Your task to perform on an android device: see tabs open on other devices in the chrome app Image 0: 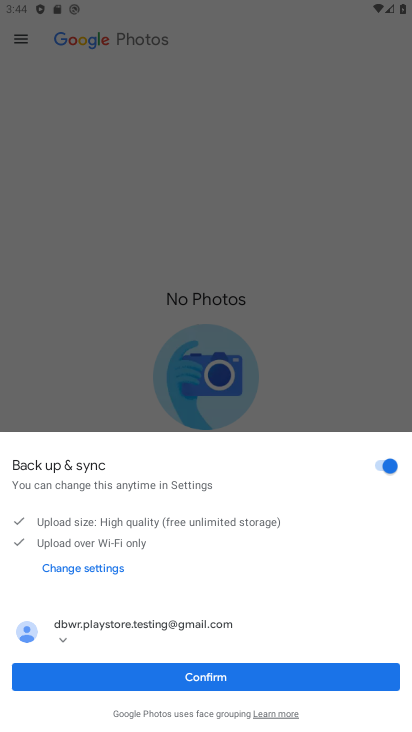
Step 0: press home button
Your task to perform on an android device: see tabs open on other devices in the chrome app Image 1: 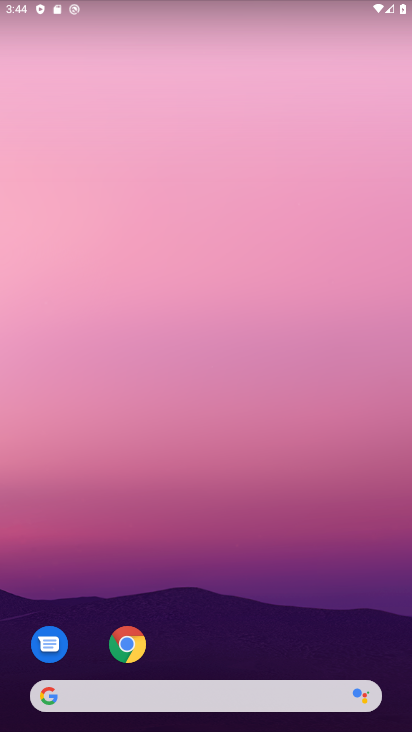
Step 1: click (126, 644)
Your task to perform on an android device: see tabs open on other devices in the chrome app Image 2: 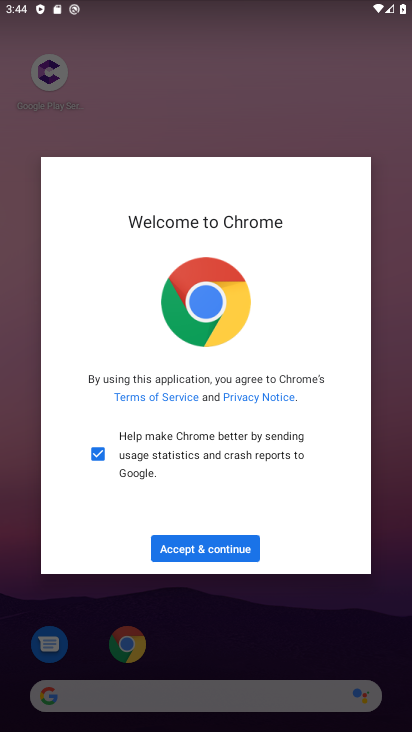
Step 2: click (194, 550)
Your task to perform on an android device: see tabs open on other devices in the chrome app Image 3: 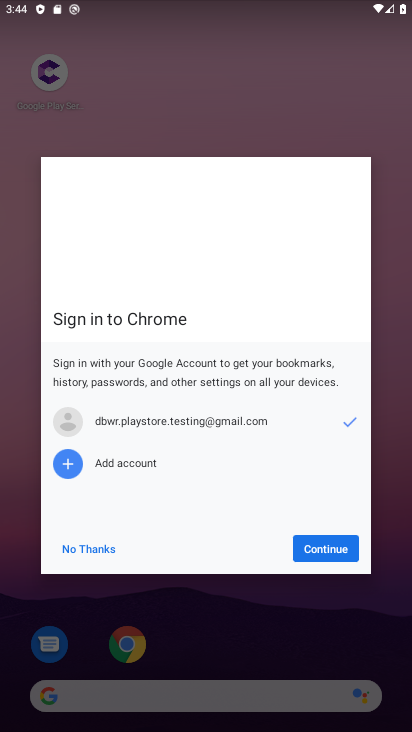
Step 3: click (323, 544)
Your task to perform on an android device: see tabs open on other devices in the chrome app Image 4: 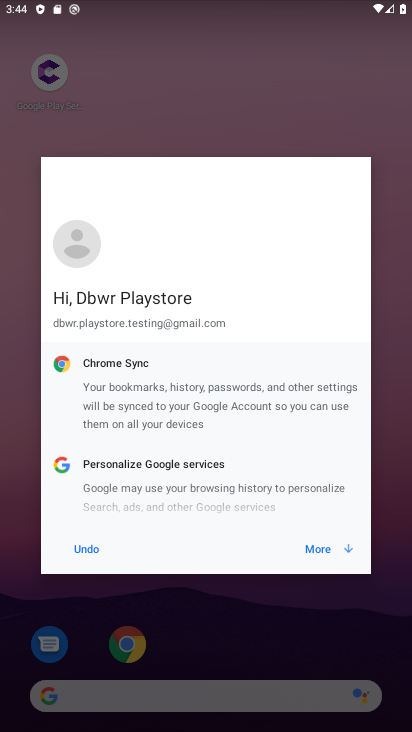
Step 4: click (324, 548)
Your task to perform on an android device: see tabs open on other devices in the chrome app Image 5: 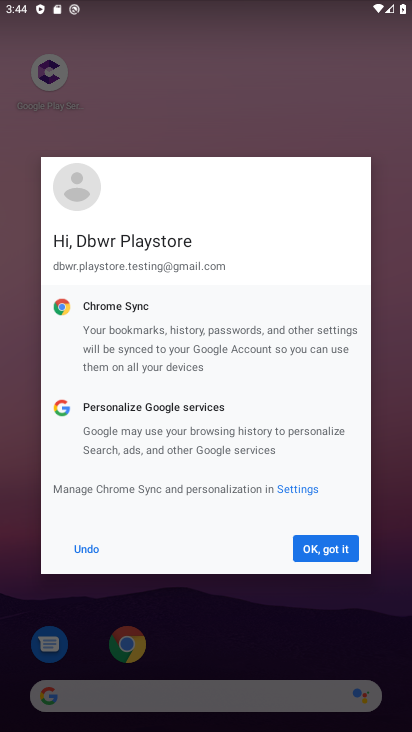
Step 5: click (324, 548)
Your task to perform on an android device: see tabs open on other devices in the chrome app Image 6: 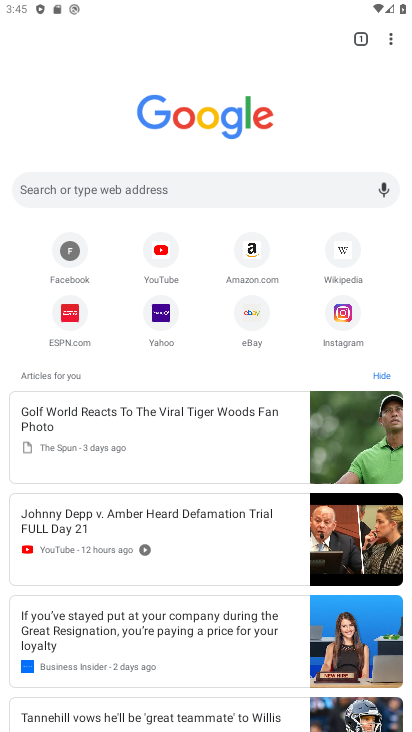
Step 6: click (392, 38)
Your task to perform on an android device: see tabs open on other devices in the chrome app Image 7: 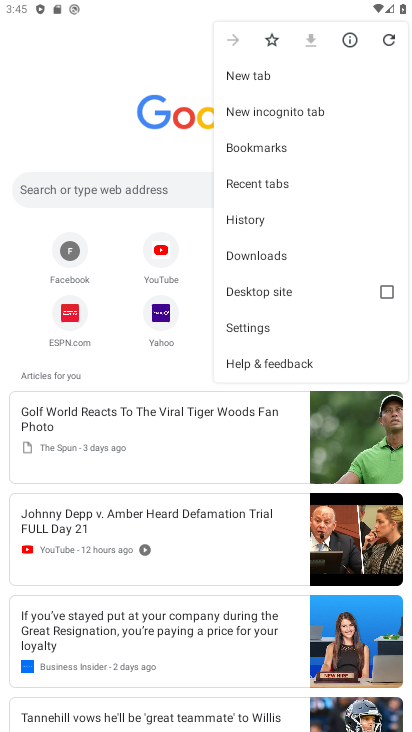
Step 7: click (250, 184)
Your task to perform on an android device: see tabs open on other devices in the chrome app Image 8: 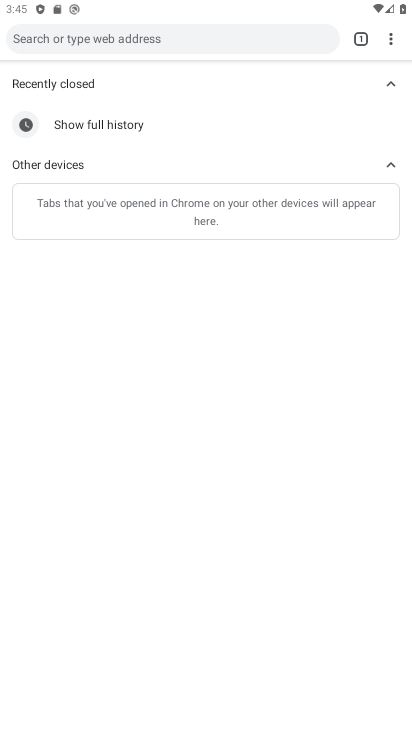
Step 8: task complete